Your task to perform on an android device: Open sound settings Image 0: 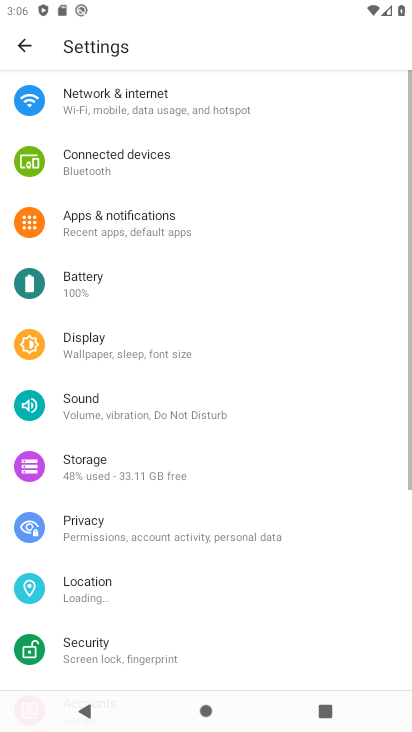
Step 0: click (219, 416)
Your task to perform on an android device: Open sound settings Image 1: 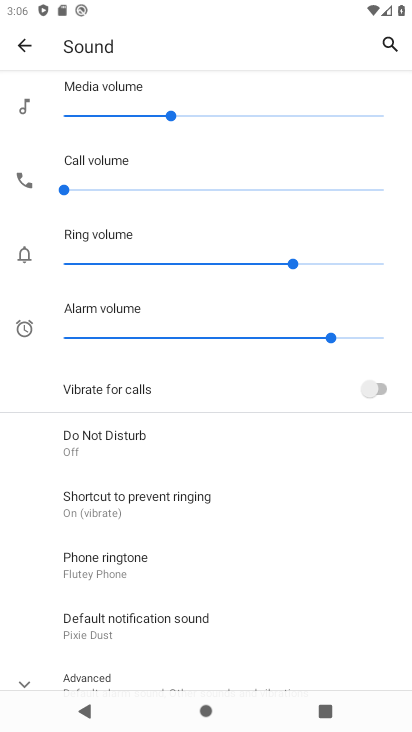
Step 1: task complete